Your task to perform on an android device: add a contact Image 0: 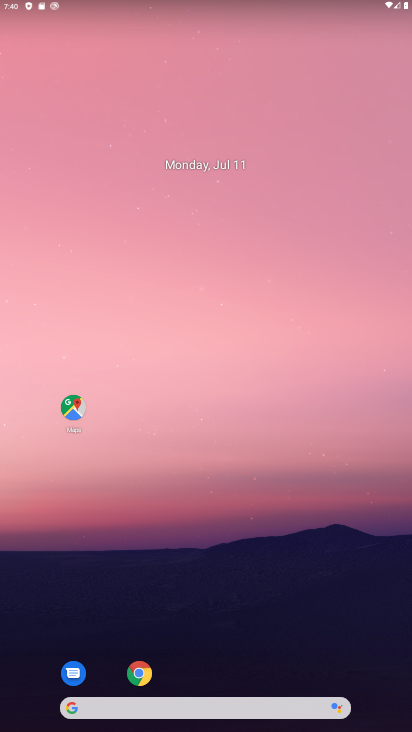
Step 0: drag from (267, 643) to (200, 117)
Your task to perform on an android device: add a contact Image 1: 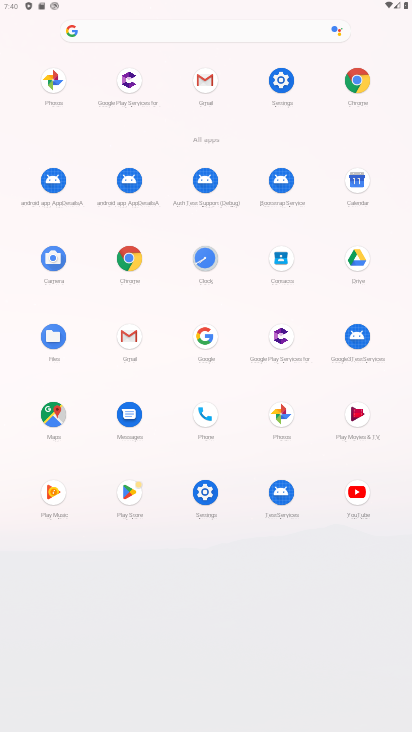
Step 1: click (285, 263)
Your task to perform on an android device: add a contact Image 2: 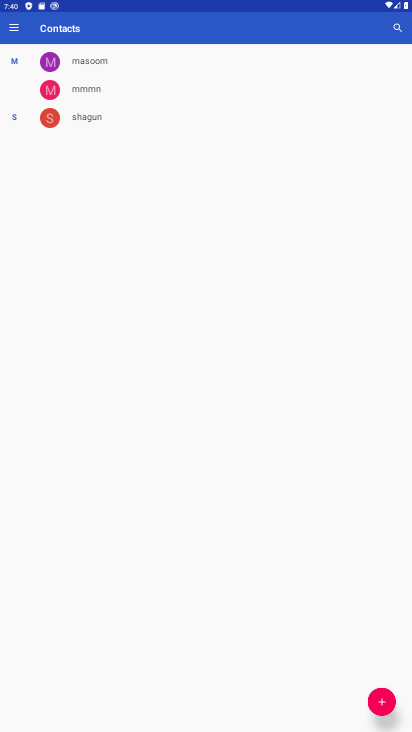
Step 2: click (384, 708)
Your task to perform on an android device: add a contact Image 3: 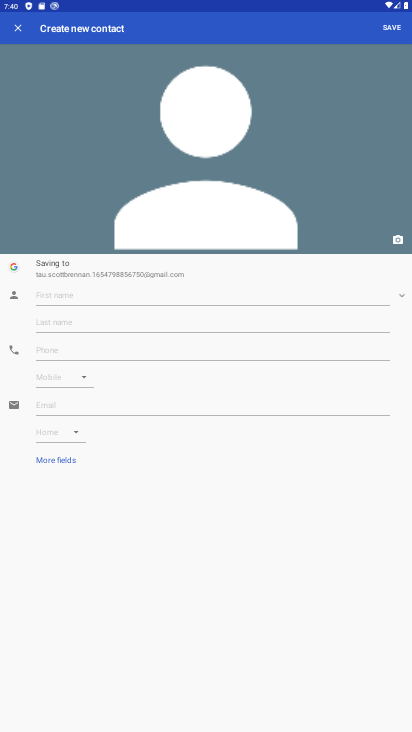
Step 3: click (121, 297)
Your task to perform on an android device: add a contact Image 4: 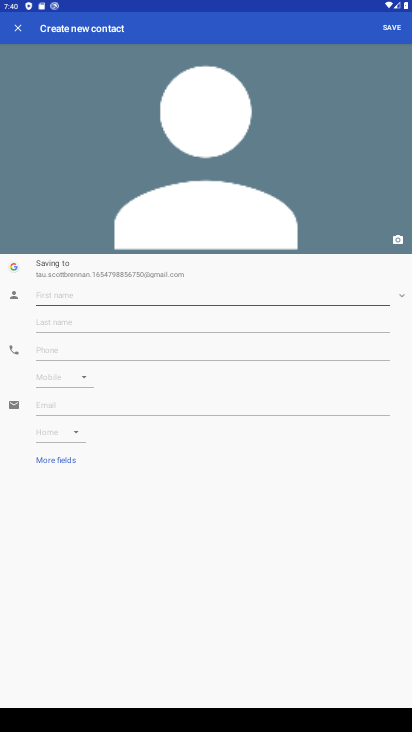
Step 4: type "panda"
Your task to perform on an android device: add a contact Image 5: 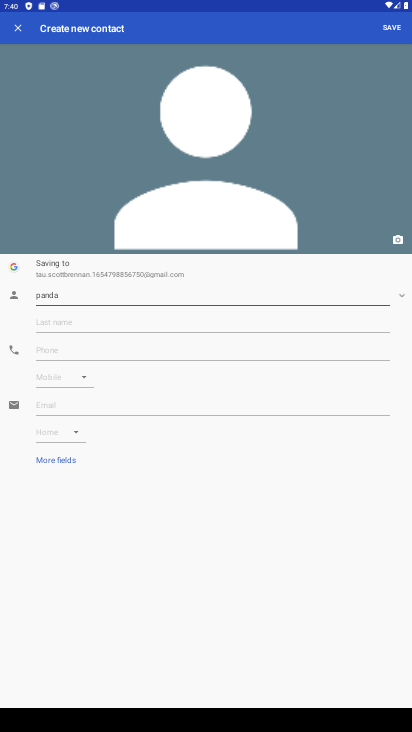
Step 5: click (393, 29)
Your task to perform on an android device: add a contact Image 6: 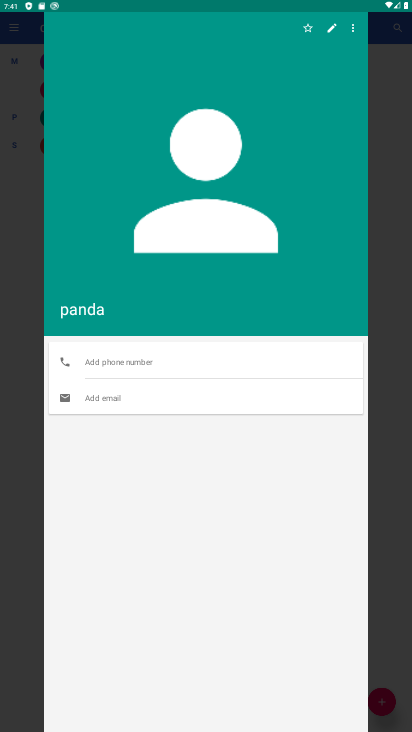
Step 6: task complete